Your task to perform on an android device: Go to battery settings Image 0: 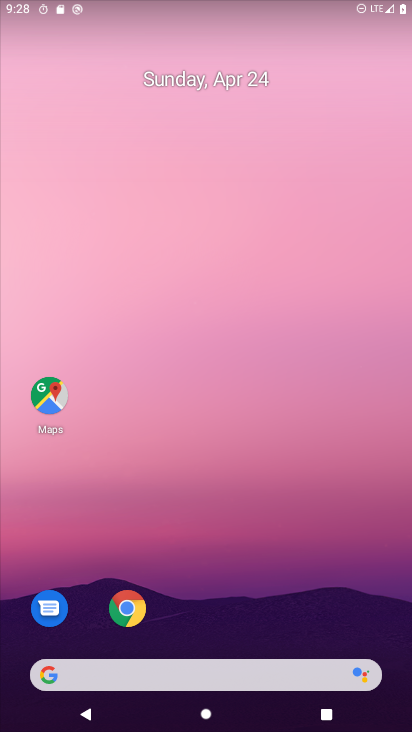
Step 0: drag from (325, 525) to (324, 37)
Your task to perform on an android device: Go to battery settings Image 1: 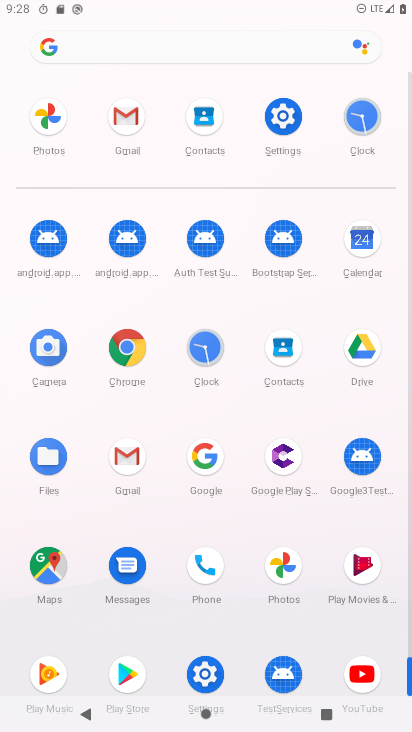
Step 1: click (282, 107)
Your task to perform on an android device: Go to battery settings Image 2: 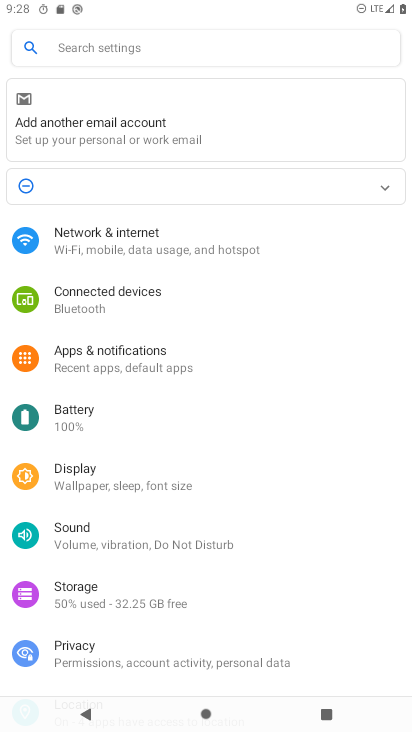
Step 2: click (124, 421)
Your task to perform on an android device: Go to battery settings Image 3: 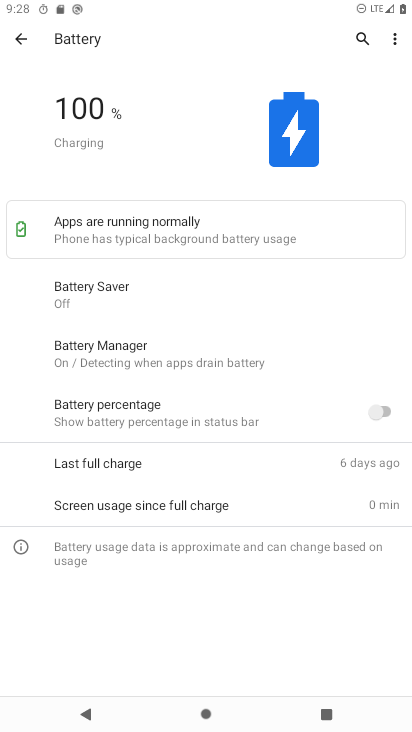
Step 3: task complete